Your task to perform on an android device: Open Youtube and go to the subscriptions tab Image 0: 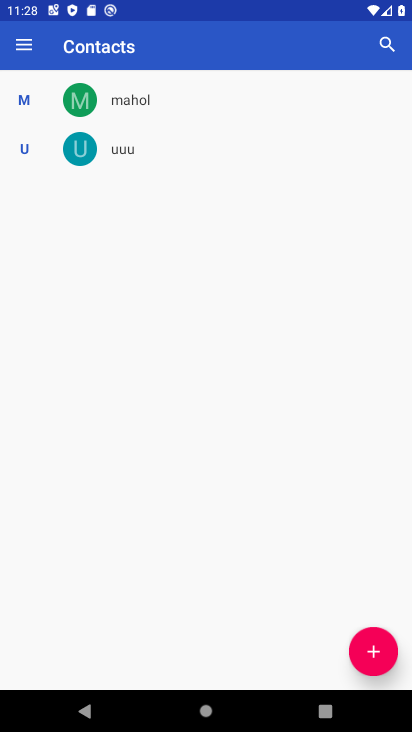
Step 0: press home button
Your task to perform on an android device: Open Youtube and go to the subscriptions tab Image 1: 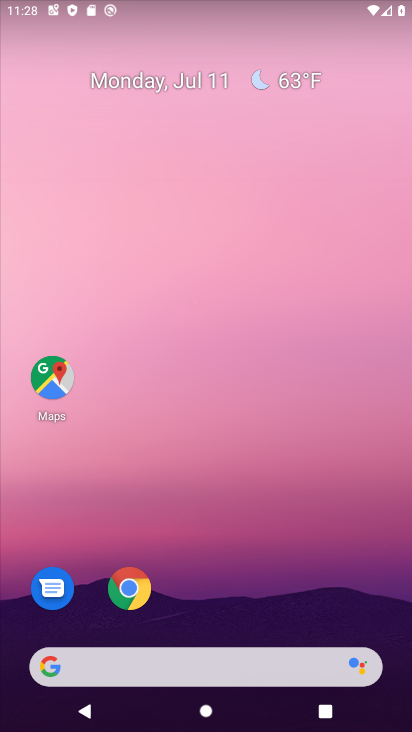
Step 1: drag from (265, 723) to (216, 187)
Your task to perform on an android device: Open Youtube and go to the subscriptions tab Image 2: 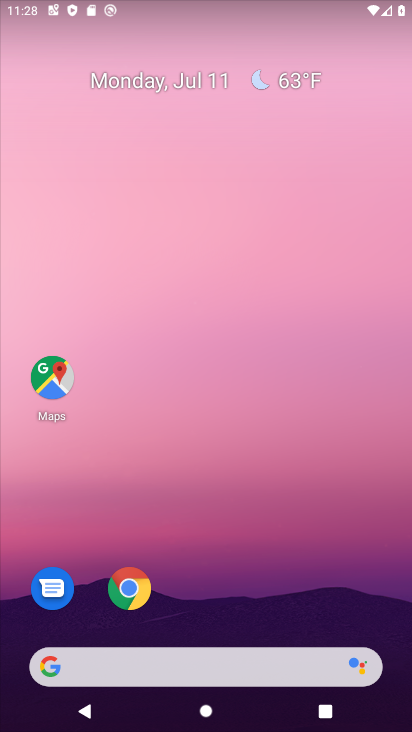
Step 2: drag from (257, 714) to (240, 98)
Your task to perform on an android device: Open Youtube and go to the subscriptions tab Image 3: 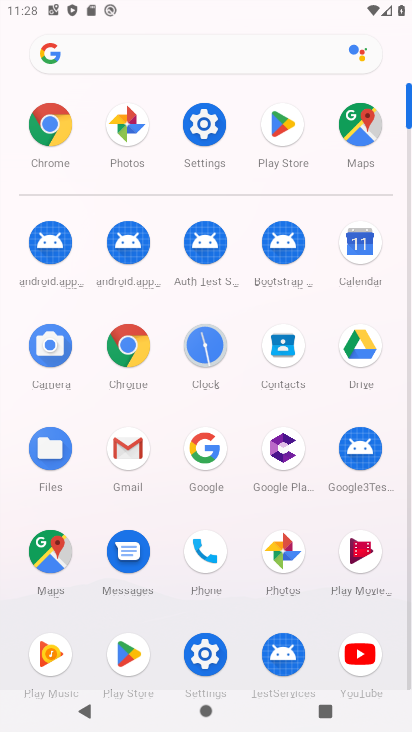
Step 3: click (357, 650)
Your task to perform on an android device: Open Youtube and go to the subscriptions tab Image 4: 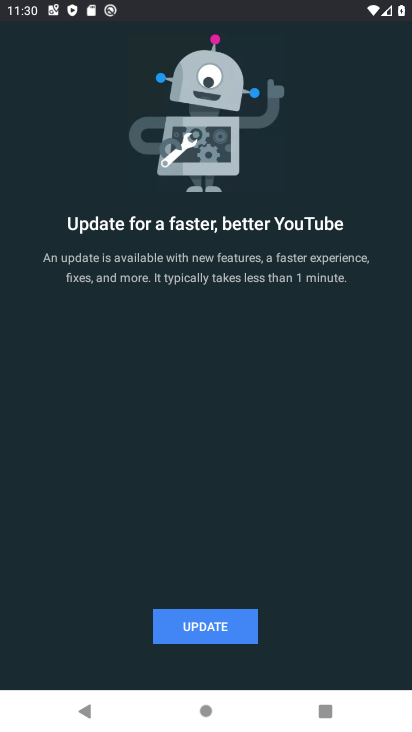
Step 4: press home button
Your task to perform on an android device: Open Youtube and go to the subscriptions tab Image 5: 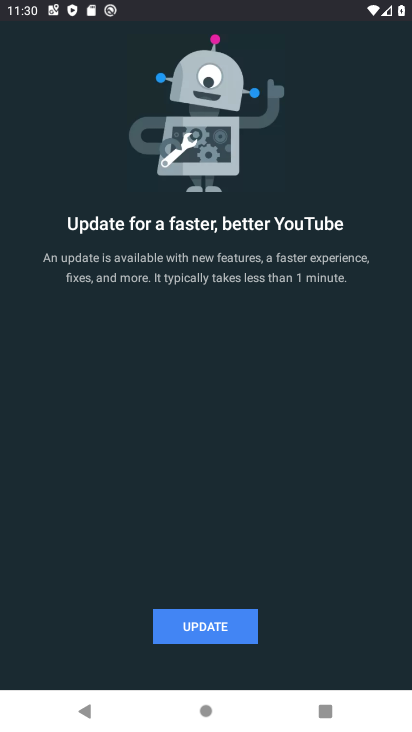
Step 5: press home button
Your task to perform on an android device: Open Youtube and go to the subscriptions tab Image 6: 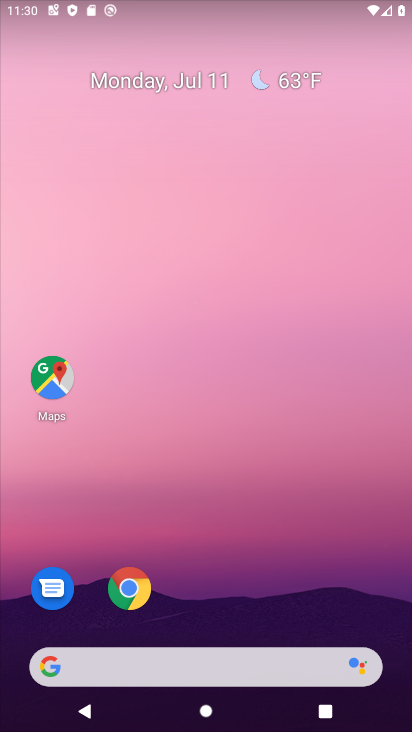
Step 6: drag from (246, 726) to (228, 648)
Your task to perform on an android device: Open Youtube and go to the subscriptions tab Image 7: 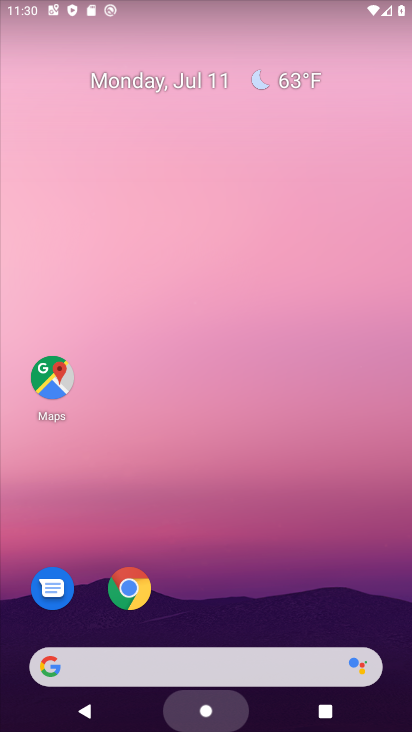
Step 7: drag from (211, 313) to (207, 78)
Your task to perform on an android device: Open Youtube and go to the subscriptions tab Image 8: 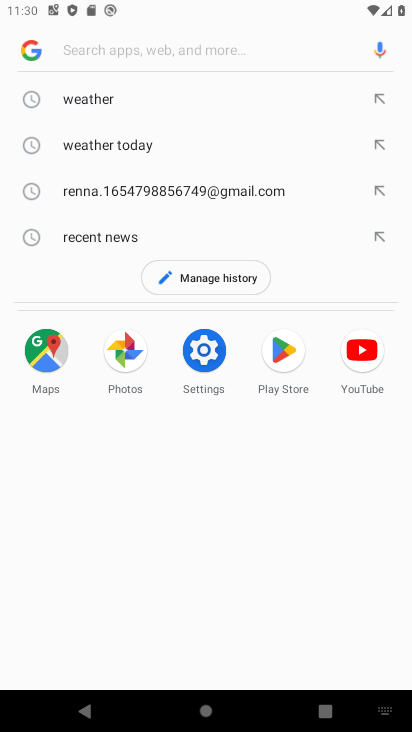
Step 8: click (365, 346)
Your task to perform on an android device: Open Youtube and go to the subscriptions tab Image 9: 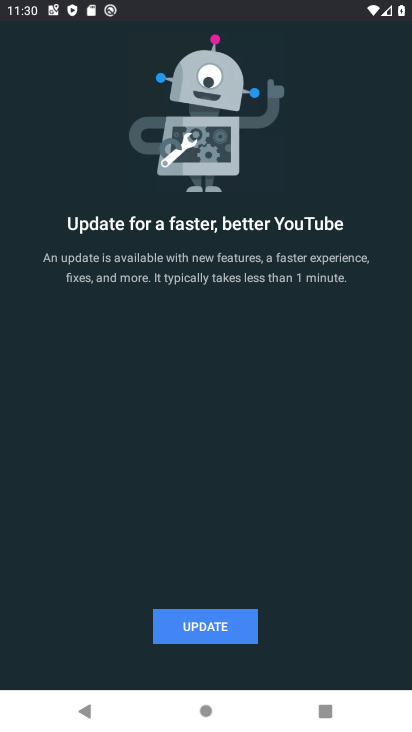
Step 9: task complete